Your task to perform on an android device: Open Google Maps Image 0: 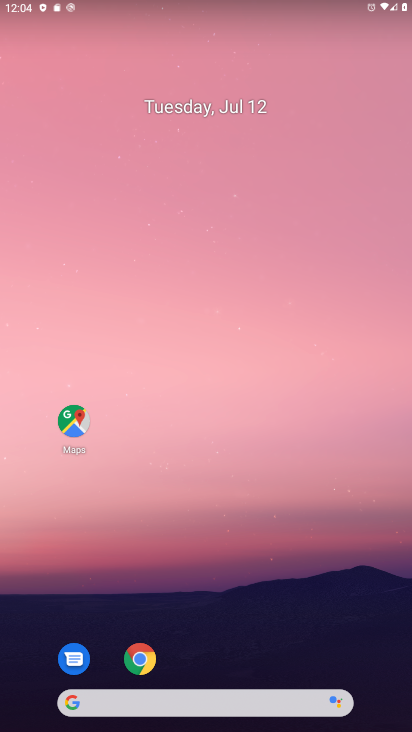
Step 0: drag from (279, 143) to (242, 345)
Your task to perform on an android device: Open Google Maps Image 1: 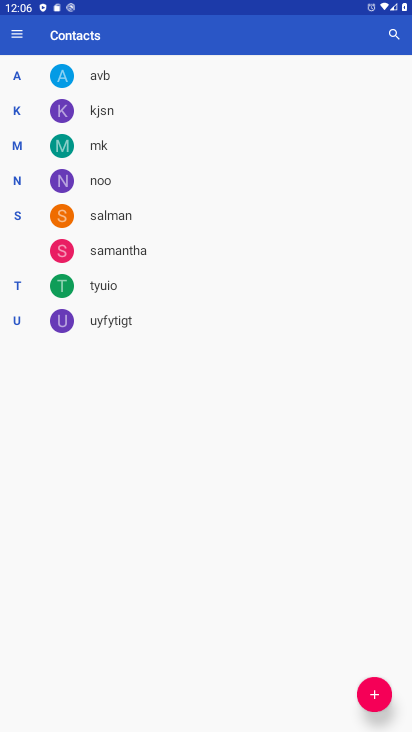
Step 1: click (249, 419)
Your task to perform on an android device: Open Google Maps Image 2: 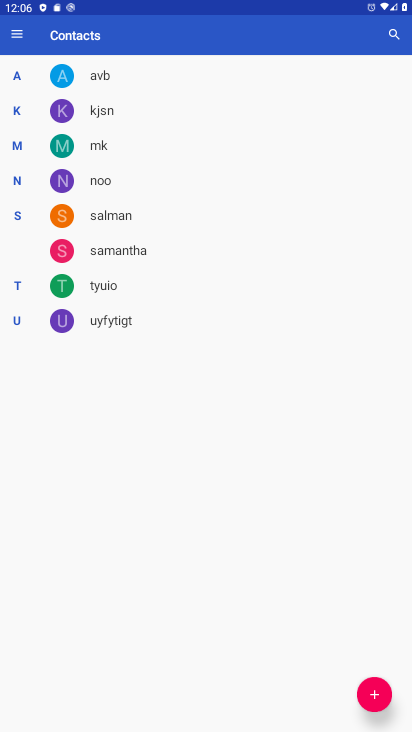
Step 2: press home button
Your task to perform on an android device: Open Google Maps Image 3: 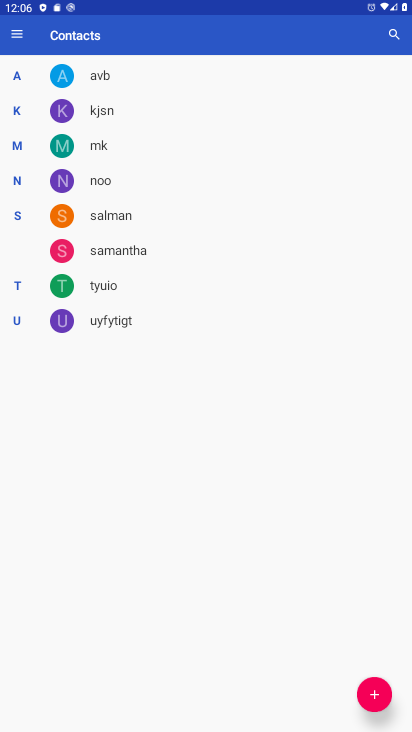
Step 3: press home button
Your task to perform on an android device: Open Google Maps Image 4: 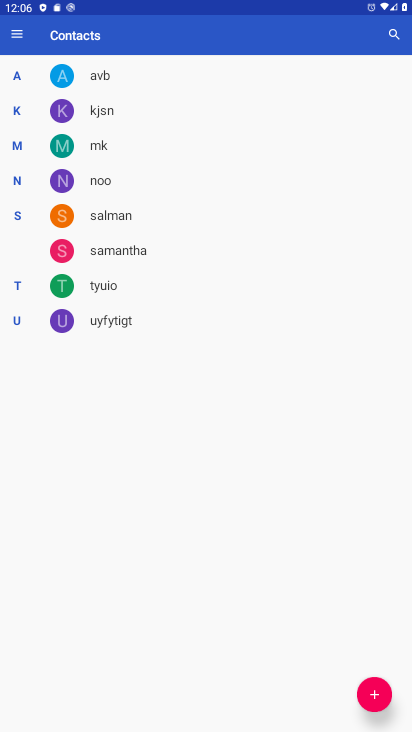
Step 4: drag from (173, 628) to (260, 110)
Your task to perform on an android device: Open Google Maps Image 5: 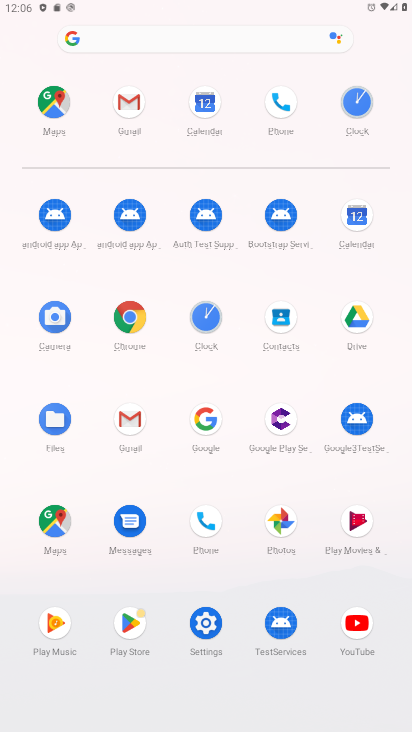
Step 5: click (52, 521)
Your task to perform on an android device: Open Google Maps Image 6: 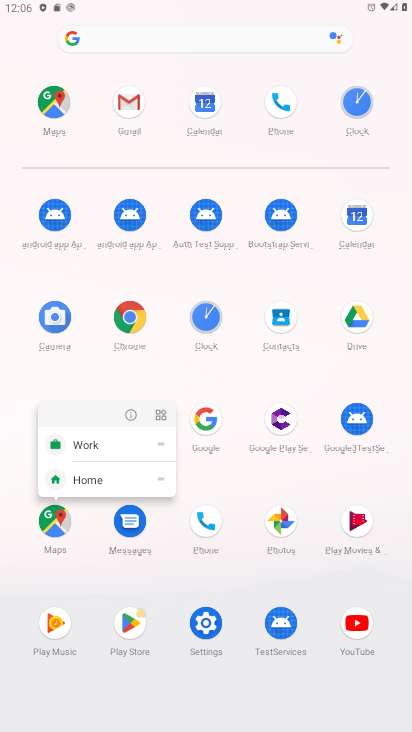
Step 6: click (134, 417)
Your task to perform on an android device: Open Google Maps Image 7: 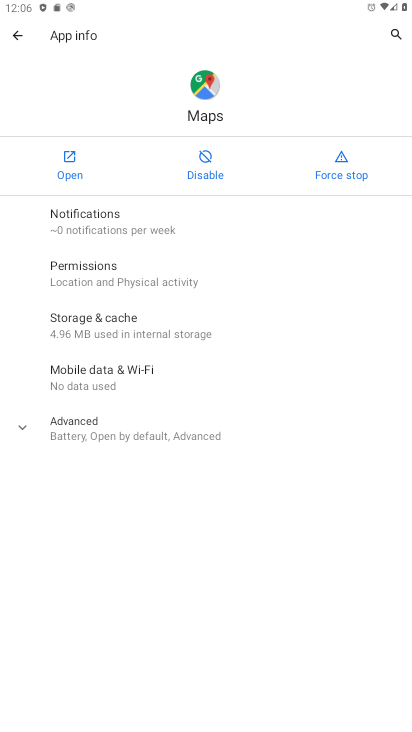
Step 7: click (58, 163)
Your task to perform on an android device: Open Google Maps Image 8: 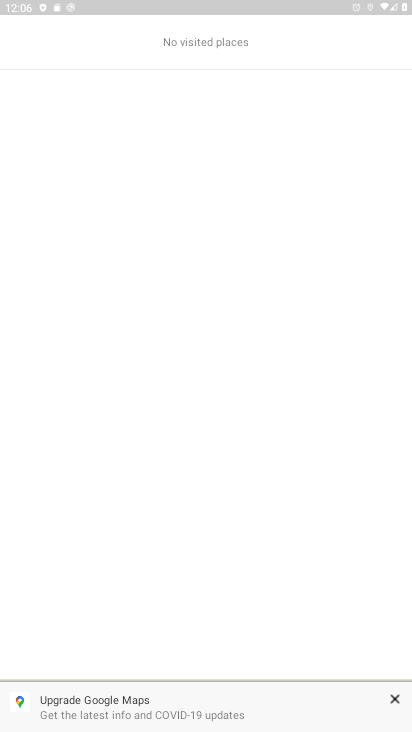
Step 8: drag from (169, 570) to (185, 209)
Your task to perform on an android device: Open Google Maps Image 9: 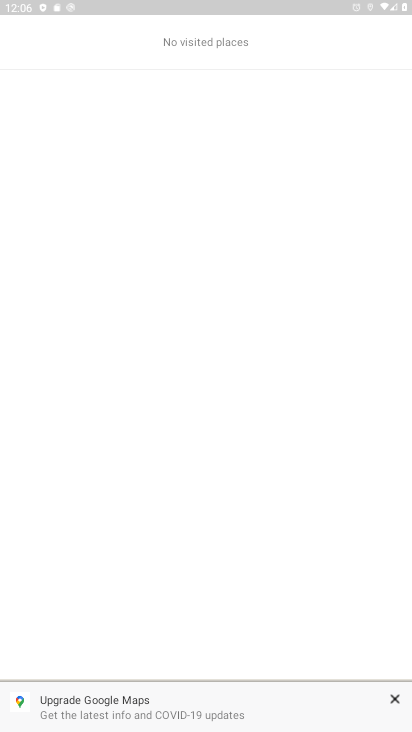
Step 9: drag from (233, 100) to (311, 667)
Your task to perform on an android device: Open Google Maps Image 10: 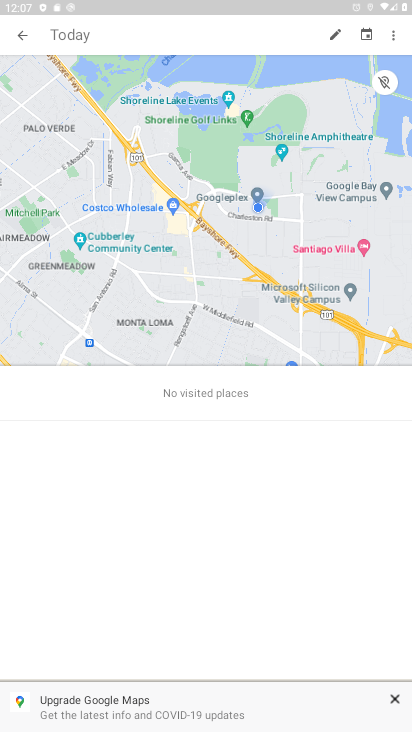
Step 10: click (392, 701)
Your task to perform on an android device: Open Google Maps Image 11: 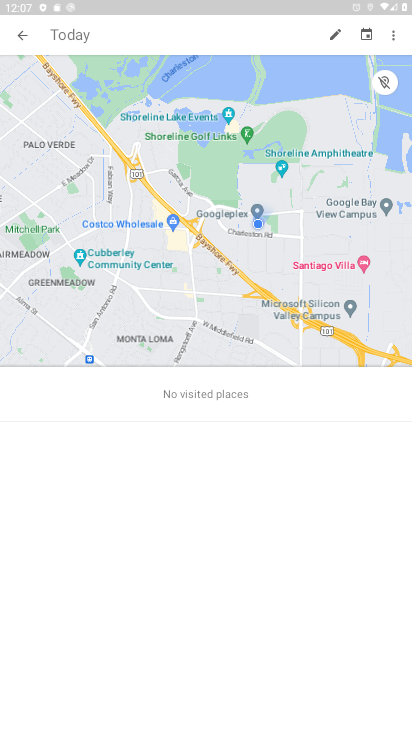
Step 11: task complete